Your task to perform on an android device: Go to accessibility settings Image 0: 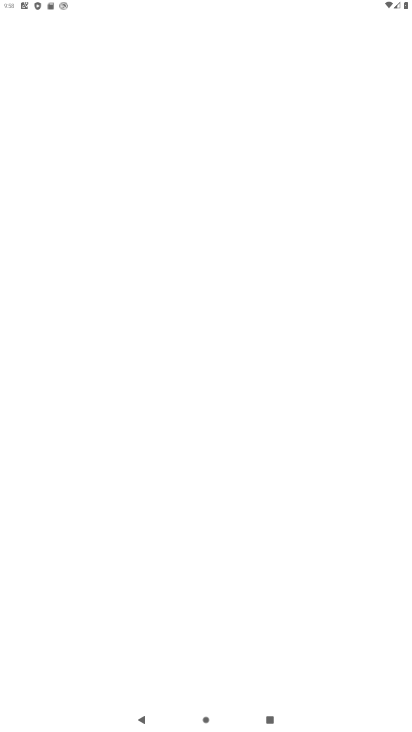
Step 0: press home button
Your task to perform on an android device: Go to accessibility settings Image 1: 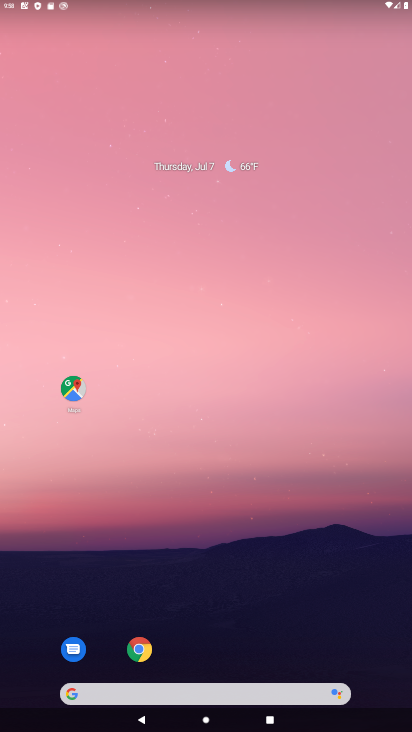
Step 1: drag from (162, 275) to (162, 109)
Your task to perform on an android device: Go to accessibility settings Image 2: 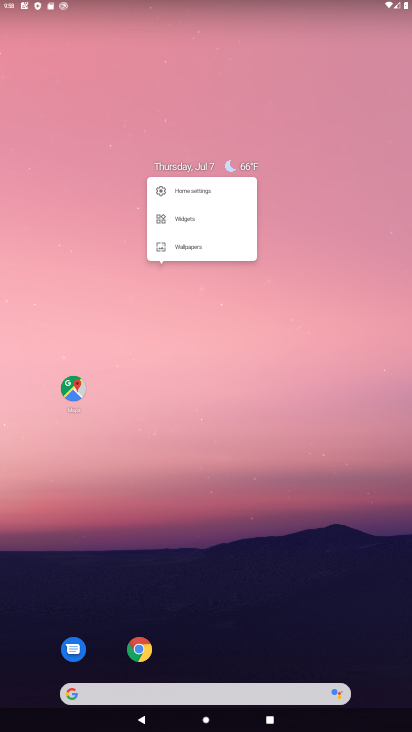
Step 2: click (175, 576)
Your task to perform on an android device: Go to accessibility settings Image 3: 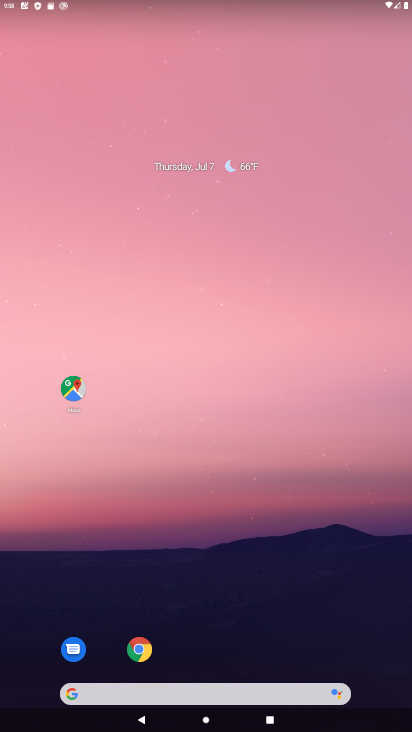
Step 3: drag from (205, 209) to (186, 76)
Your task to perform on an android device: Go to accessibility settings Image 4: 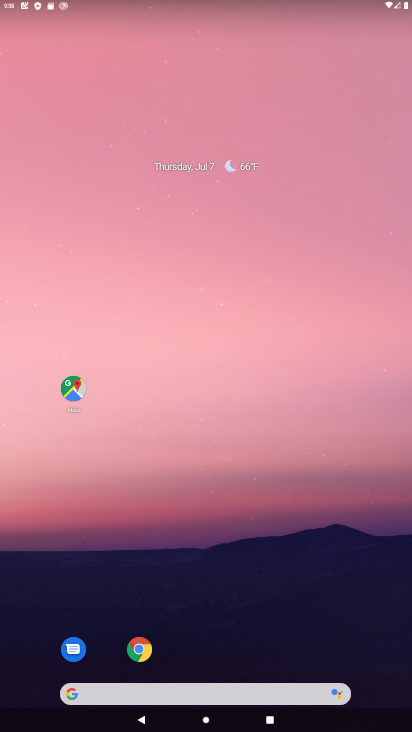
Step 4: drag from (219, 652) to (230, 198)
Your task to perform on an android device: Go to accessibility settings Image 5: 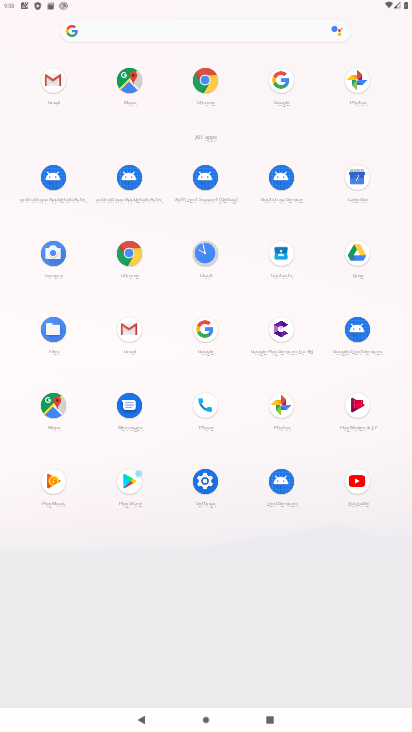
Step 5: click (202, 487)
Your task to perform on an android device: Go to accessibility settings Image 6: 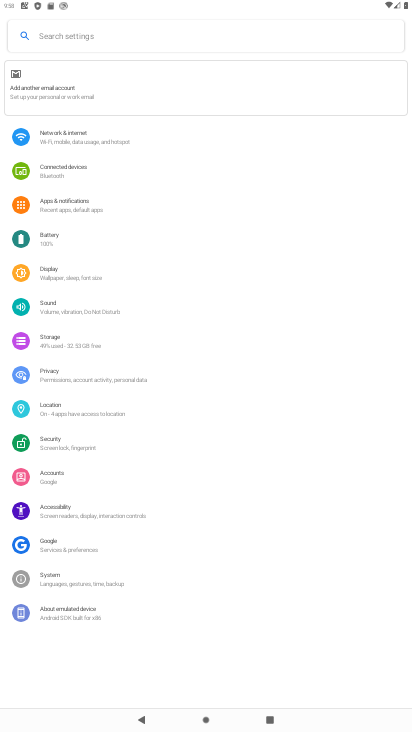
Step 6: click (83, 510)
Your task to perform on an android device: Go to accessibility settings Image 7: 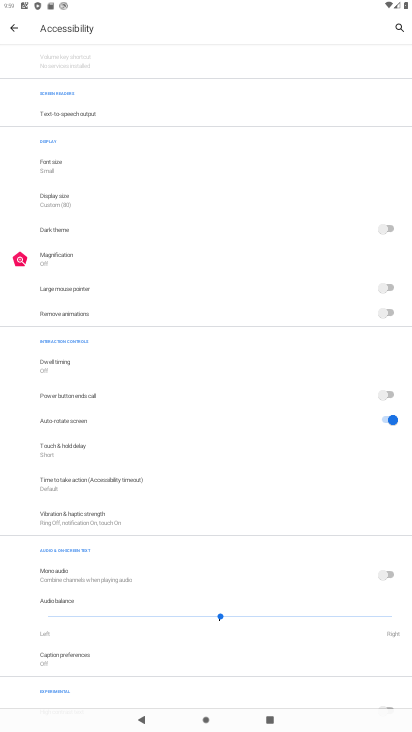
Step 7: task complete